Your task to perform on an android device: Open the calendar app, open the side menu, and click the "Day" option Image 0: 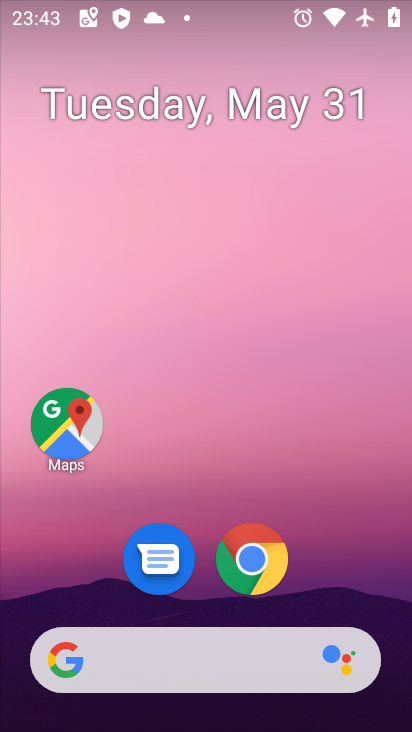
Step 0: drag from (319, 598) to (283, 81)
Your task to perform on an android device: Open the calendar app, open the side menu, and click the "Day" option Image 1: 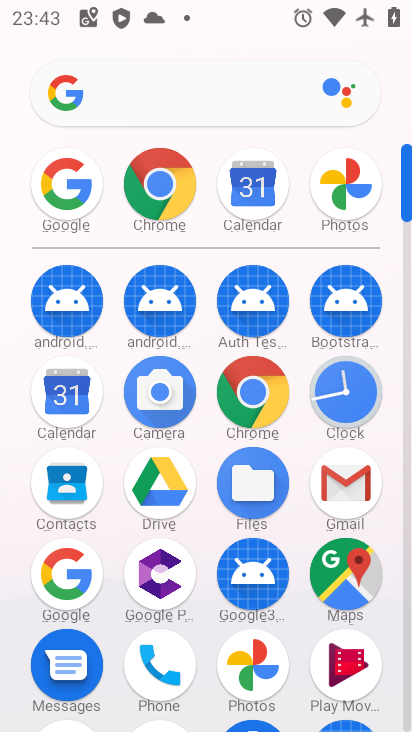
Step 1: click (64, 391)
Your task to perform on an android device: Open the calendar app, open the side menu, and click the "Day" option Image 2: 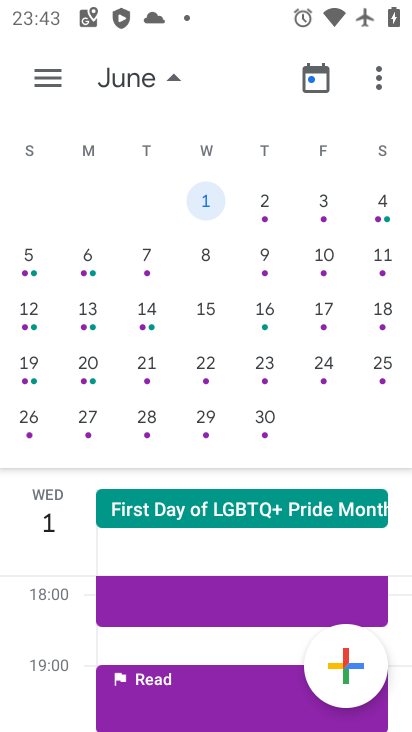
Step 2: drag from (69, 443) to (382, 443)
Your task to perform on an android device: Open the calendar app, open the side menu, and click the "Day" option Image 3: 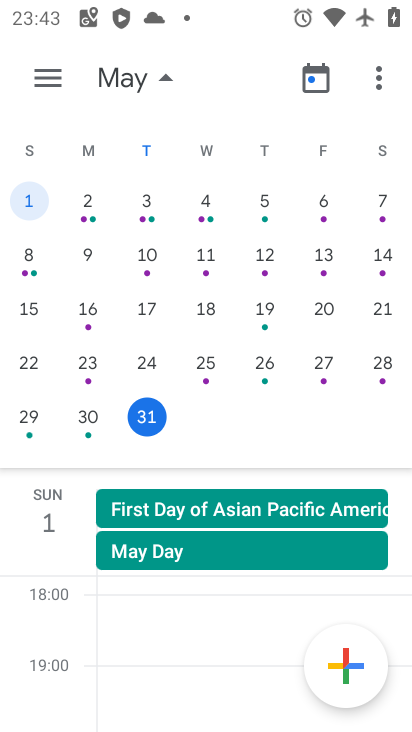
Step 3: click (161, 416)
Your task to perform on an android device: Open the calendar app, open the side menu, and click the "Day" option Image 4: 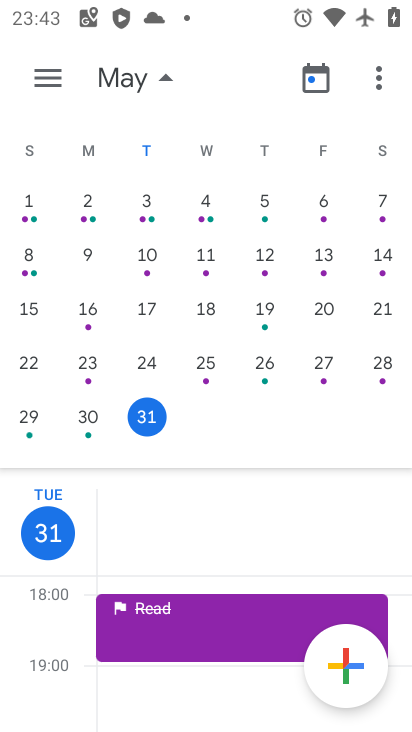
Step 4: click (53, 70)
Your task to perform on an android device: Open the calendar app, open the side menu, and click the "Day" option Image 5: 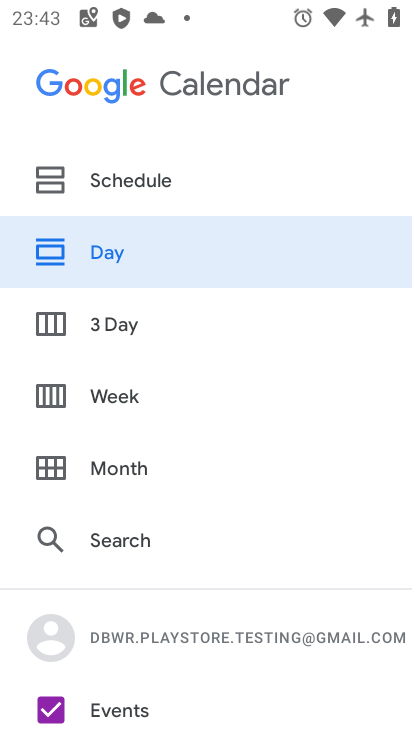
Step 5: click (164, 268)
Your task to perform on an android device: Open the calendar app, open the side menu, and click the "Day" option Image 6: 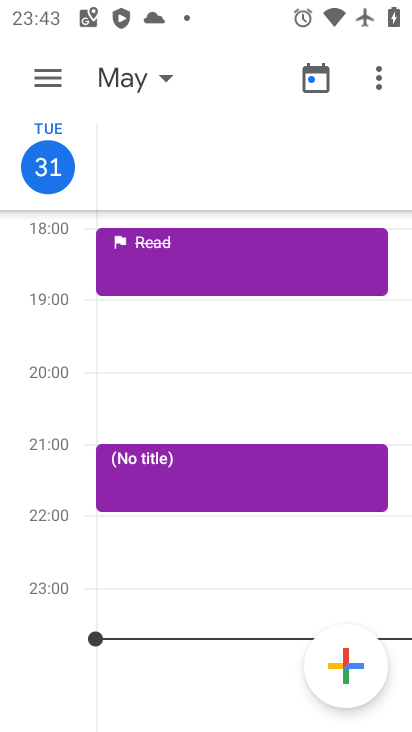
Step 6: task complete